Your task to perform on an android device: Do I have any events today? Image 0: 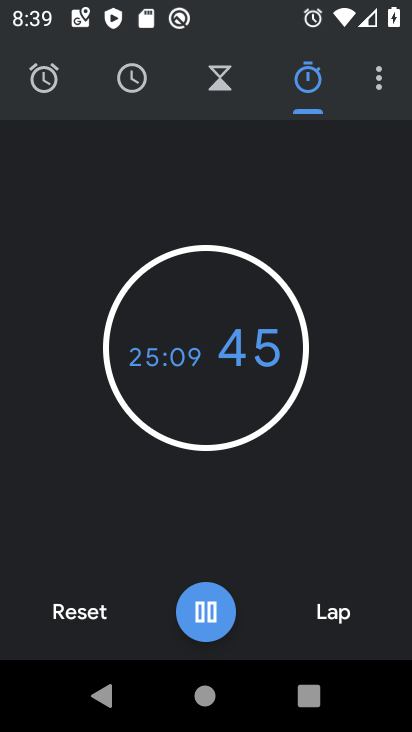
Step 0: press home button
Your task to perform on an android device: Do I have any events today? Image 1: 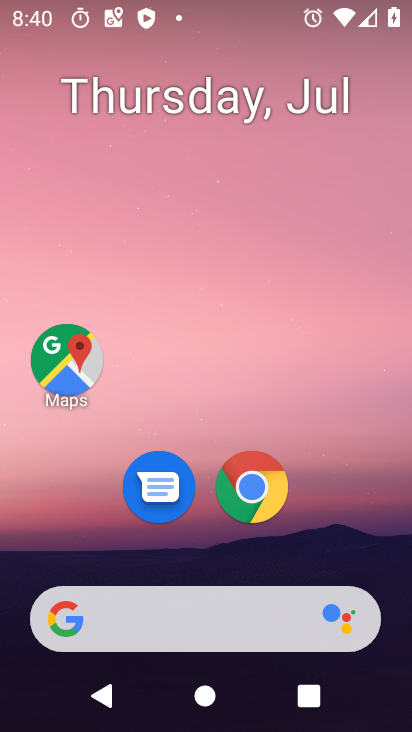
Step 1: drag from (219, 586) to (284, 249)
Your task to perform on an android device: Do I have any events today? Image 2: 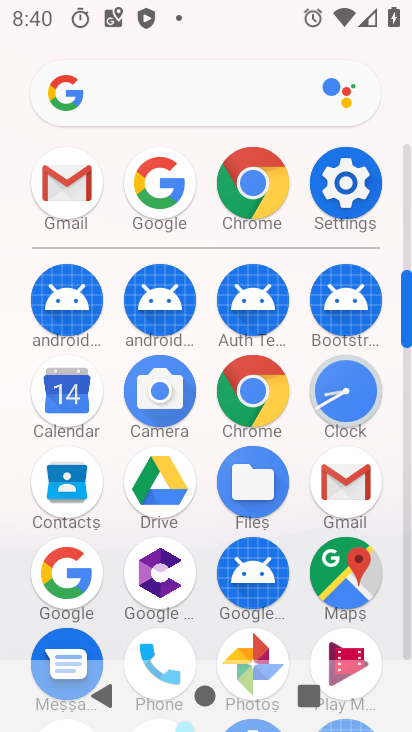
Step 2: click (61, 427)
Your task to perform on an android device: Do I have any events today? Image 3: 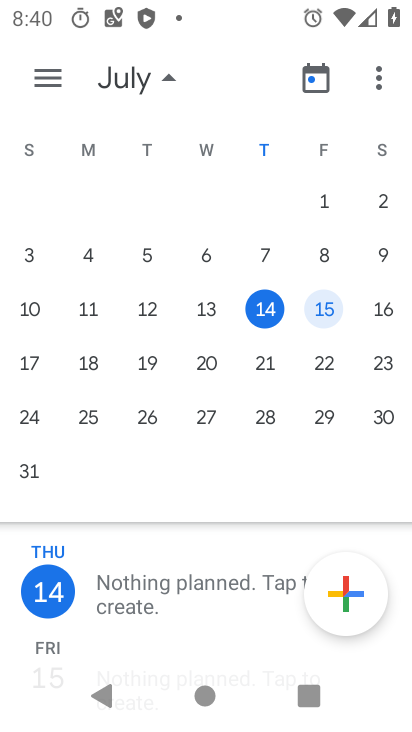
Step 3: click (269, 319)
Your task to perform on an android device: Do I have any events today? Image 4: 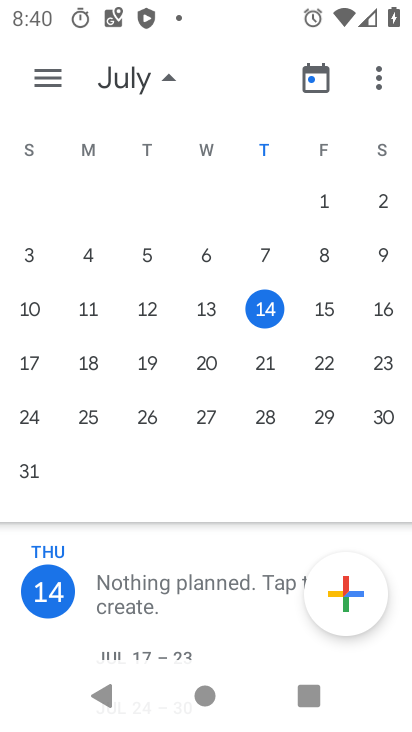
Step 4: task complete